Your task to perform on an android device: Open CNN.com Image 0: 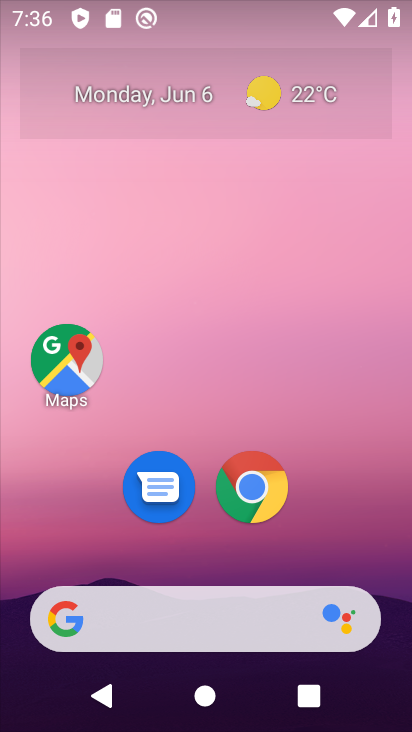
Step 0: drag from (353, 529) to (323, 140)
Your task to perform on an android device: Open CNN.com Image 1: 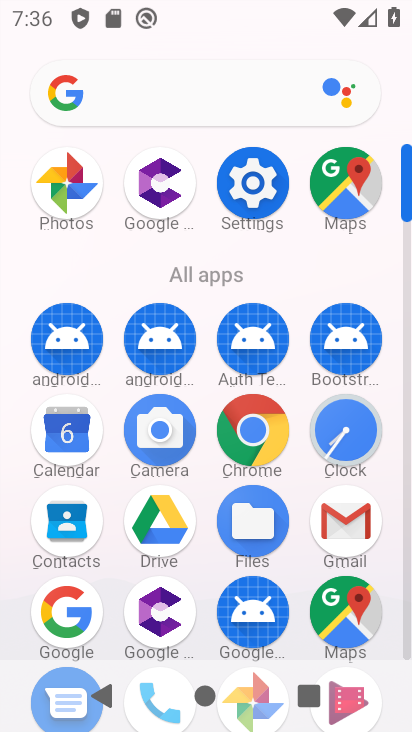
Step 1: click (245, 460)
Your task to perform on an android device: Open CNN.com Image 2: 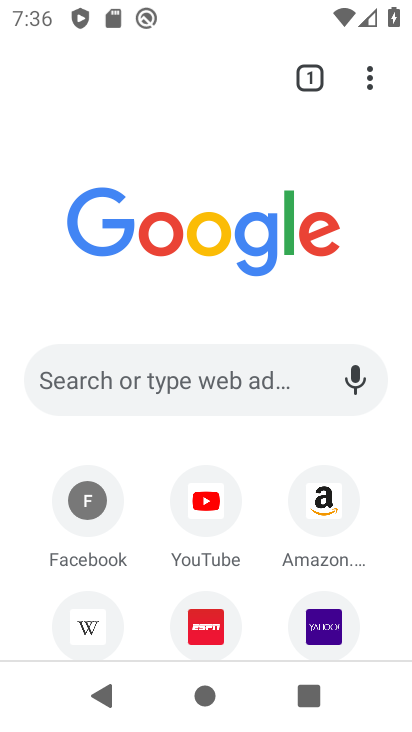
Step 2: click (235, 378)
Your task to perform on an android device: Open CNN.com Image 3: 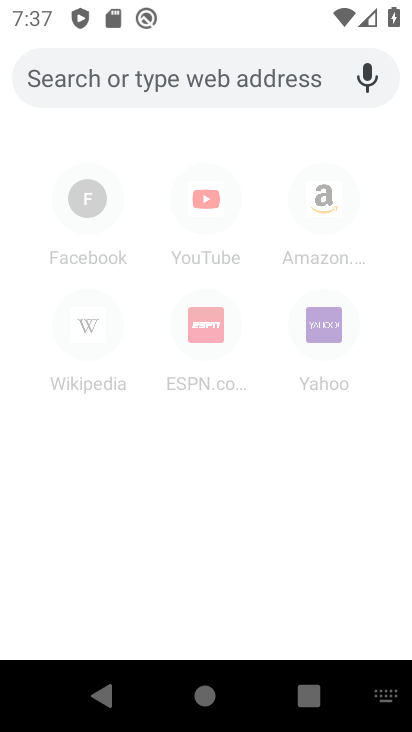
Step 3: type "cnn.com"
Your task to perform on an android device: Open CNN.com Image 4: 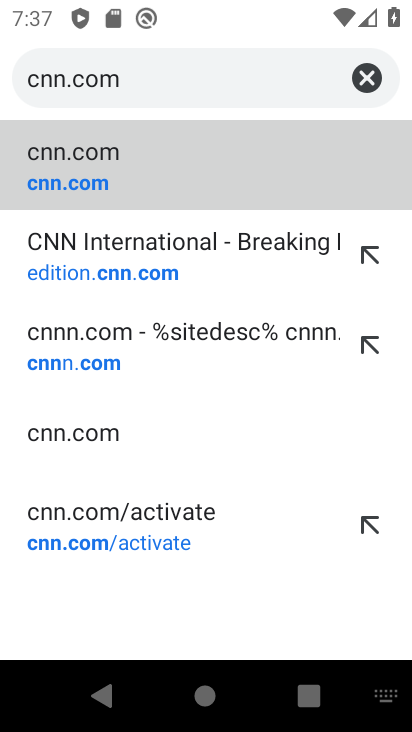
Step 4: click (45, 164)
Your task to perform on an android device: Open CNN.com Image 5: 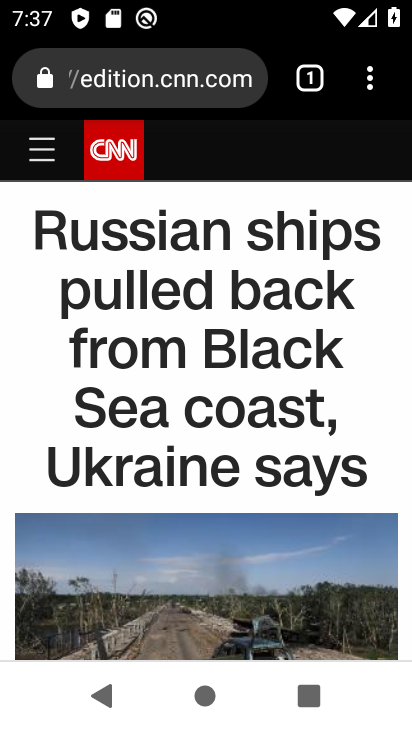
Step 5: task complete